Your task to perform on an android device: Open Google Chrome and open the bookmarks view Image 0: 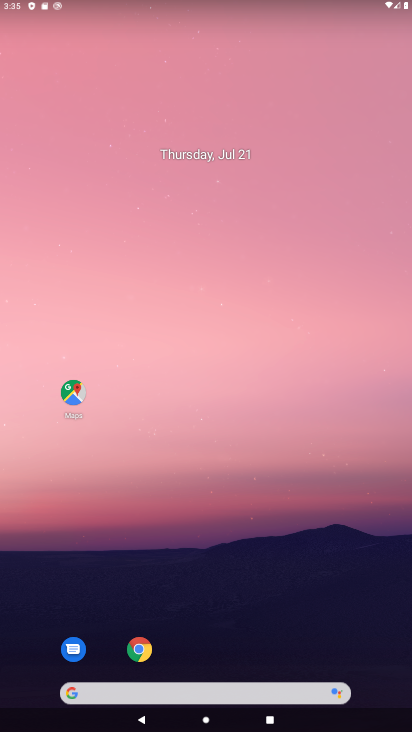
Step 0: drag from (314, 549) to (343, 63)
Your task to perform on an android device: Open Google Chrome and open the bookmarks view Image 1: 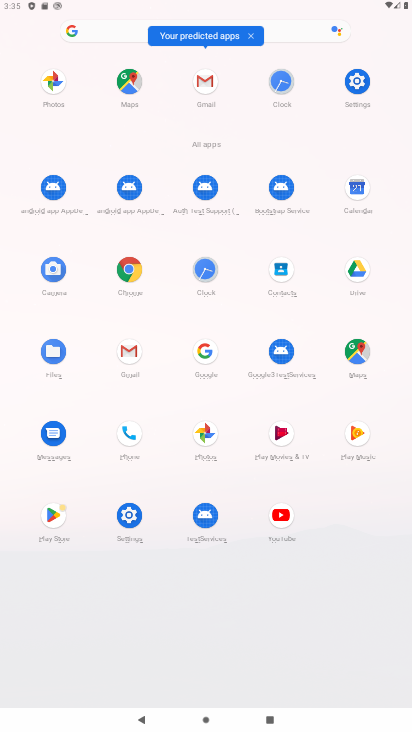
Step 1: click (125, 274)
Your task to perform on an android device: Open Google Chrome and open the bookmarks view Image 2: 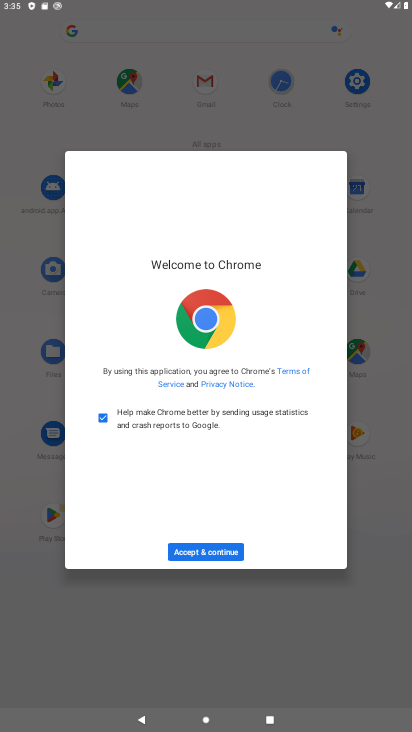
Step 2: click (203, 547)
Your task to perform on an android device: Open Google Chrome and open the bookmarks view Image 3: 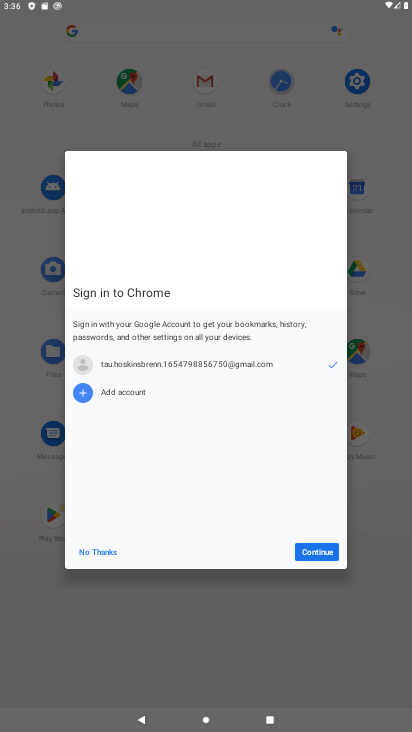
Step 3: click (305, 545)
Your task to perform on an android device: Open Google Chrome and open the bookmarks view Image 4: 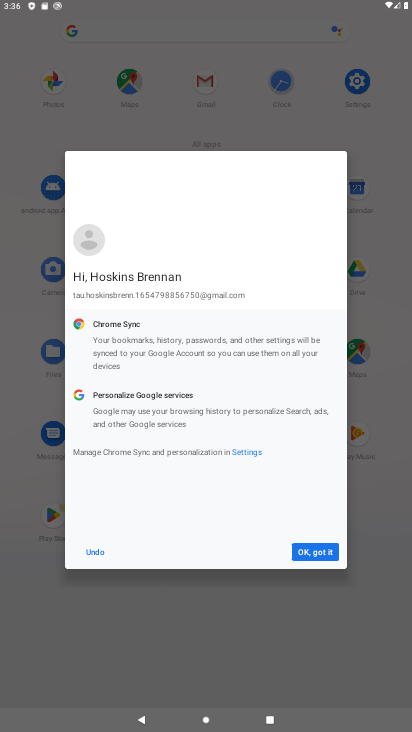
Step 4: click (305, 545)
Your task to perform on an android device: Open Google Chrome and open the bookmarks view Image 5: 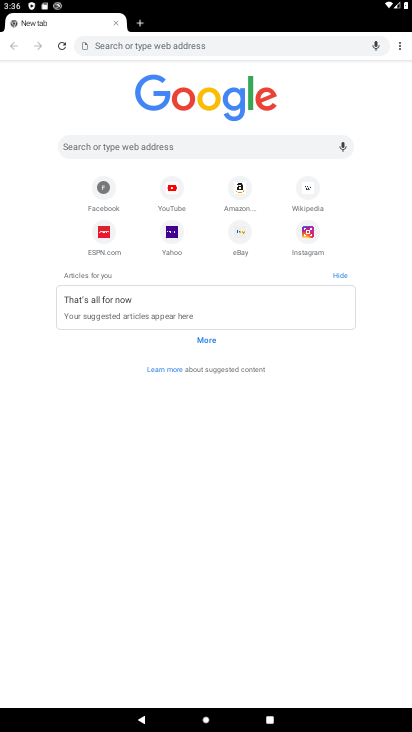
Step 5: task complete